Your task to perform on an android device: Open Wikipedia Image 0: 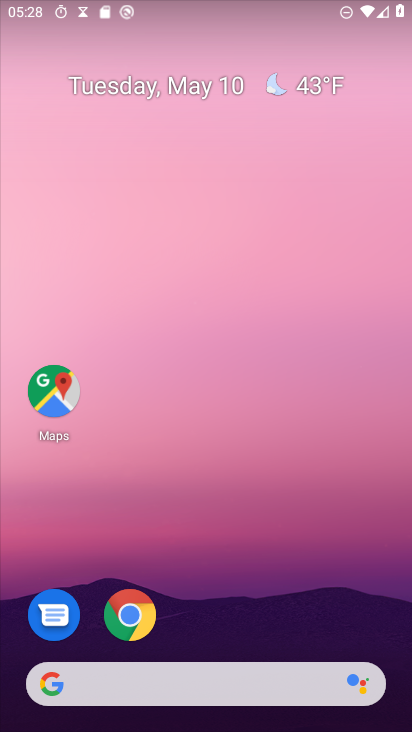
Step 0: drag from (348, 672) to (301, 33)
Your task to perform on an android device: Open Wikipedia Image 1: 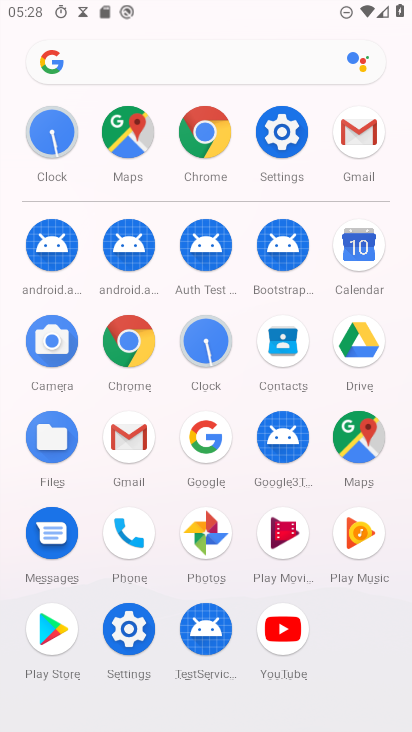
Step 1: click (123, 353)
Your task to perform on an android device: Open Wikipedia Image 2: 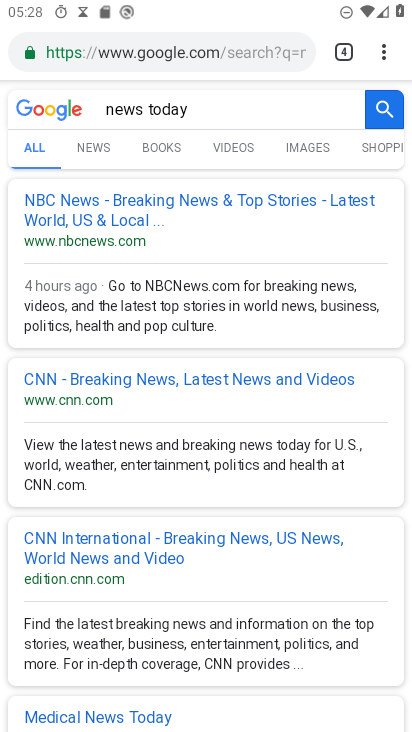
Step 2: click (231, 51)
Your task to perform on an android device: Open Wikipedia Image 3: 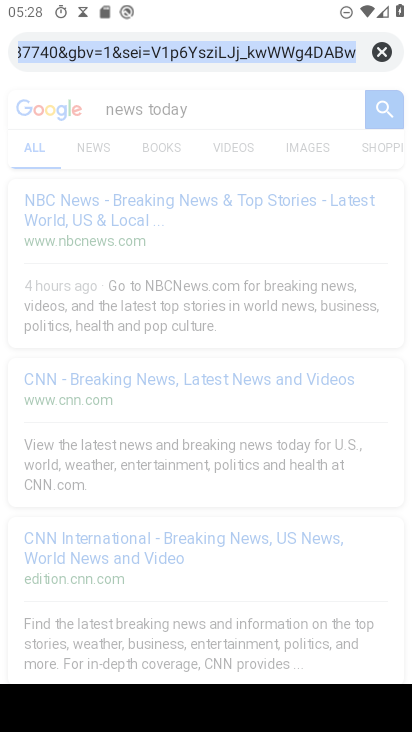
Step 3: click (371, 56)
Your task to perform on an android device: Open Wikipedia Image 4: 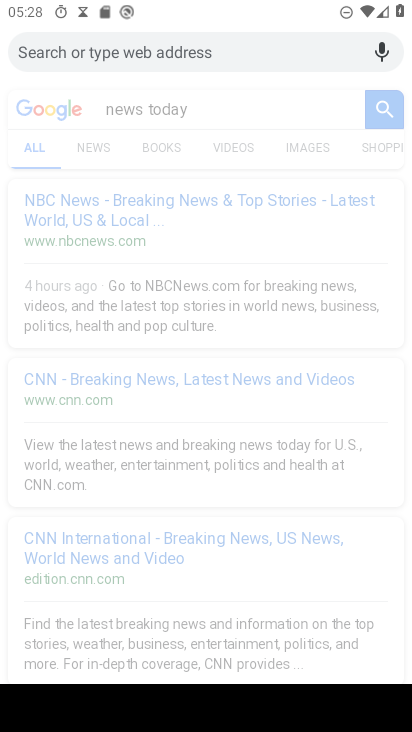
Step 4: type "wikipedia"
Your task to perform on an android device: Open Wikipedia Image 5: 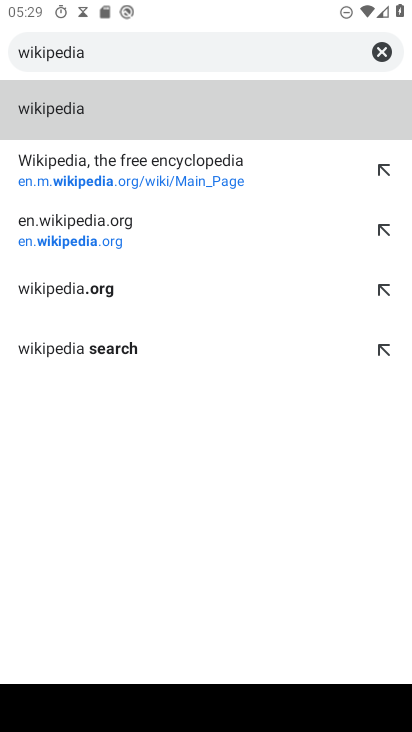
Step 5: click (196, 165)
Your task to perform on an android device: Open Wikipedia Image 6: 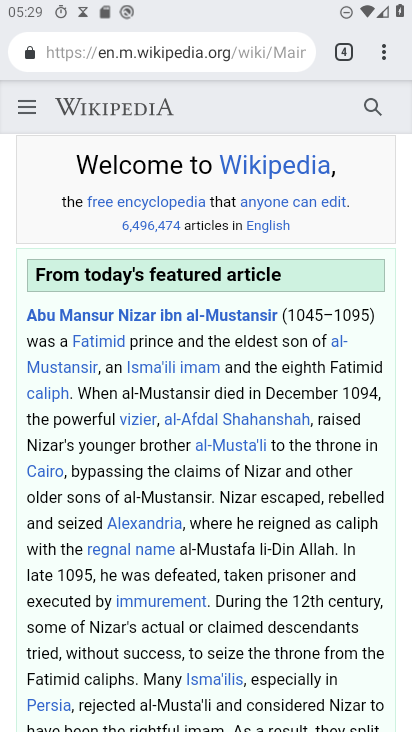
Step 6: task complete